Your task to perform on an android device: check google app version Image 0: 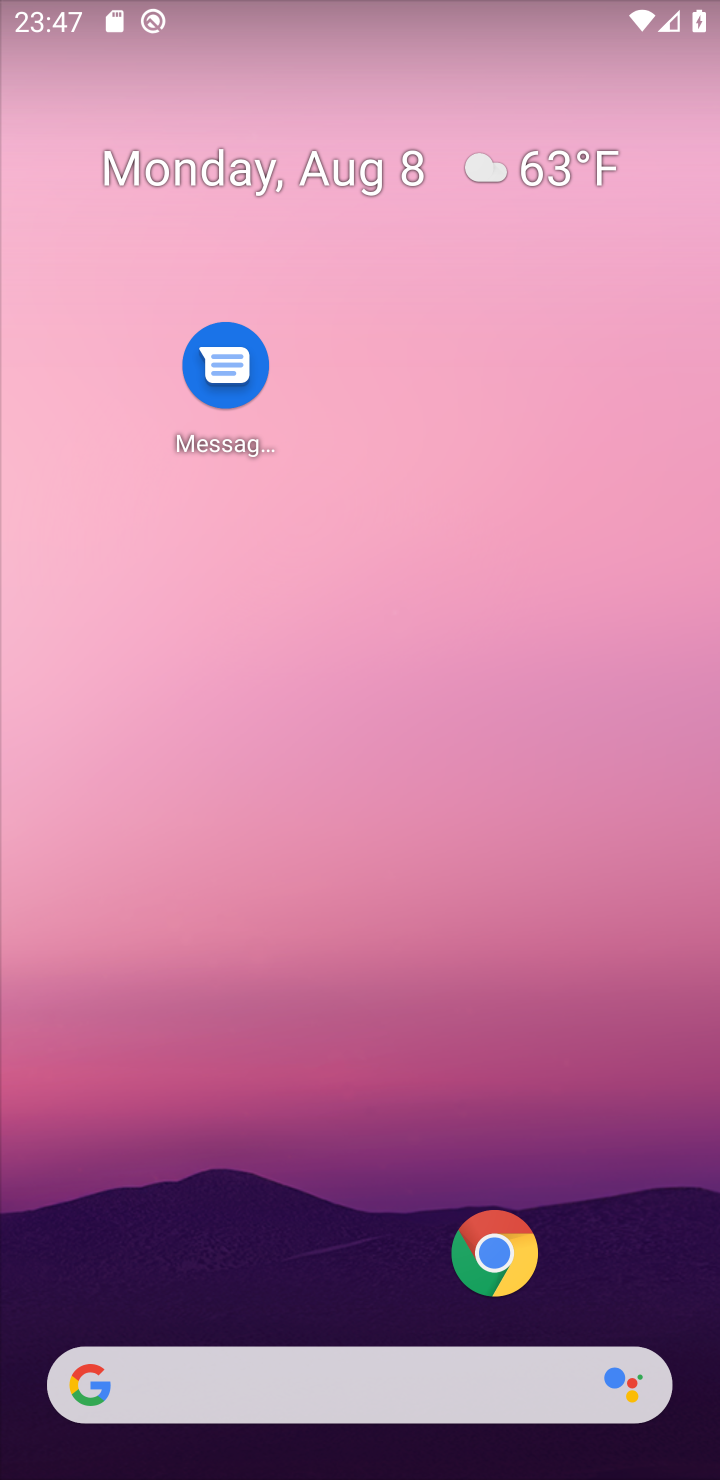
Step 0: drag from (246, 1303) to (396, 524)
Your task to perform on an android device: check google app version Image 1: 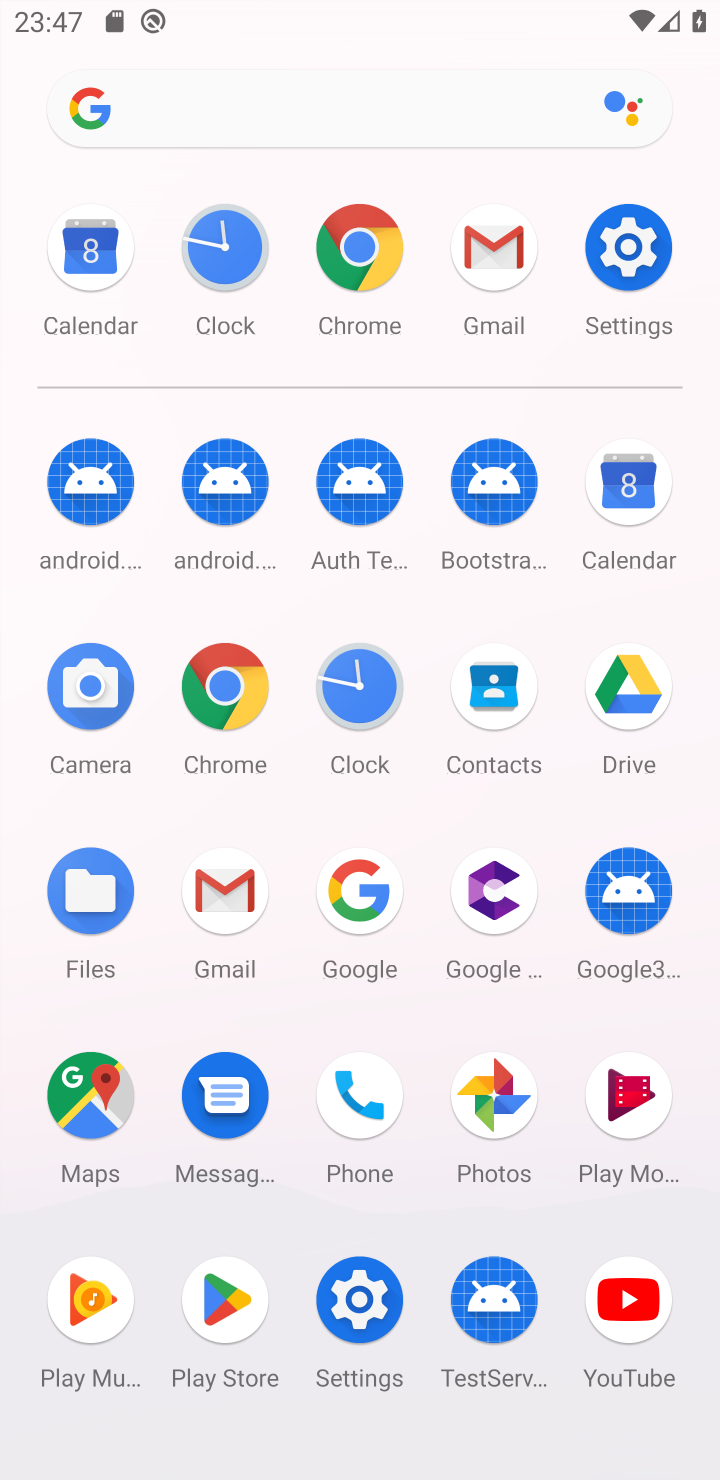
Step 1: click (347, 898)
Your task to perform on an android device: check google app version Image 2: 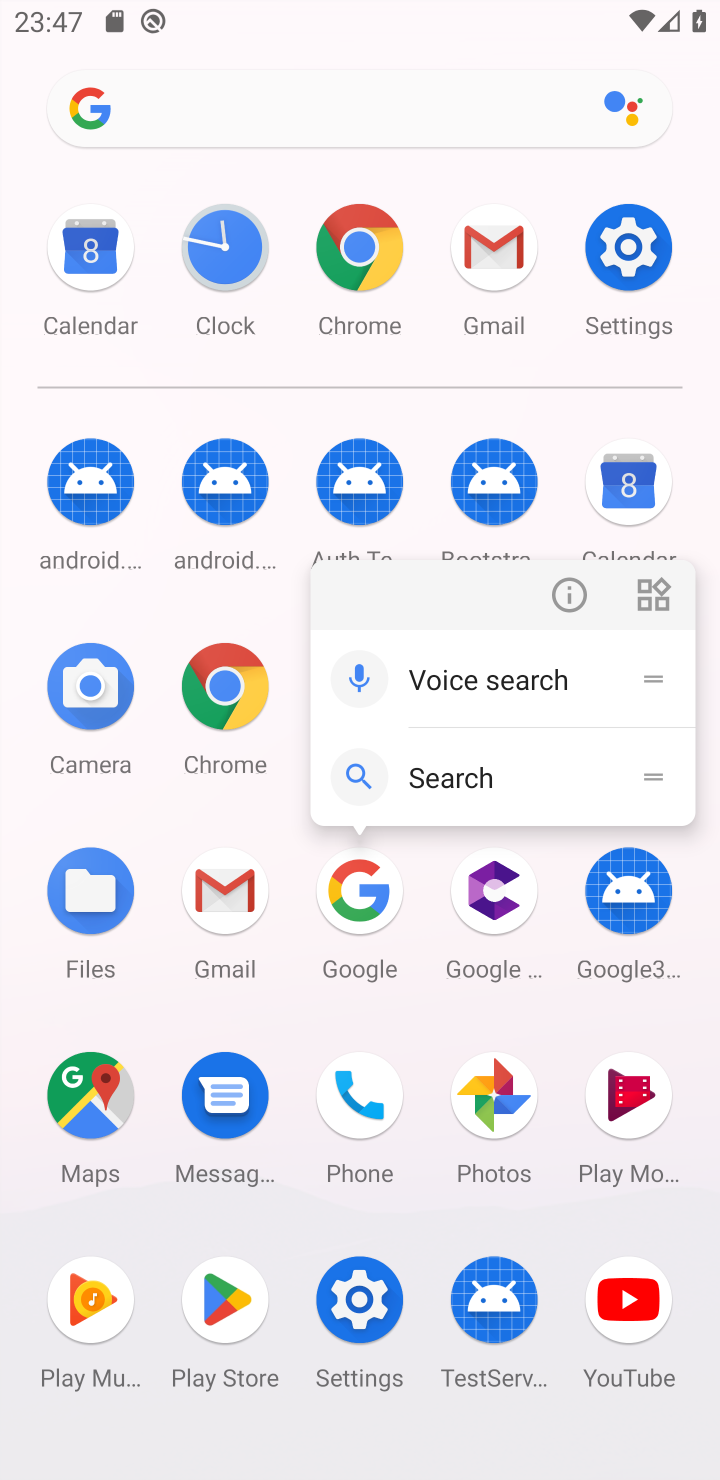
Step 2: click (347, 898)
Your task to perform on an android device: check google app version Image 3: 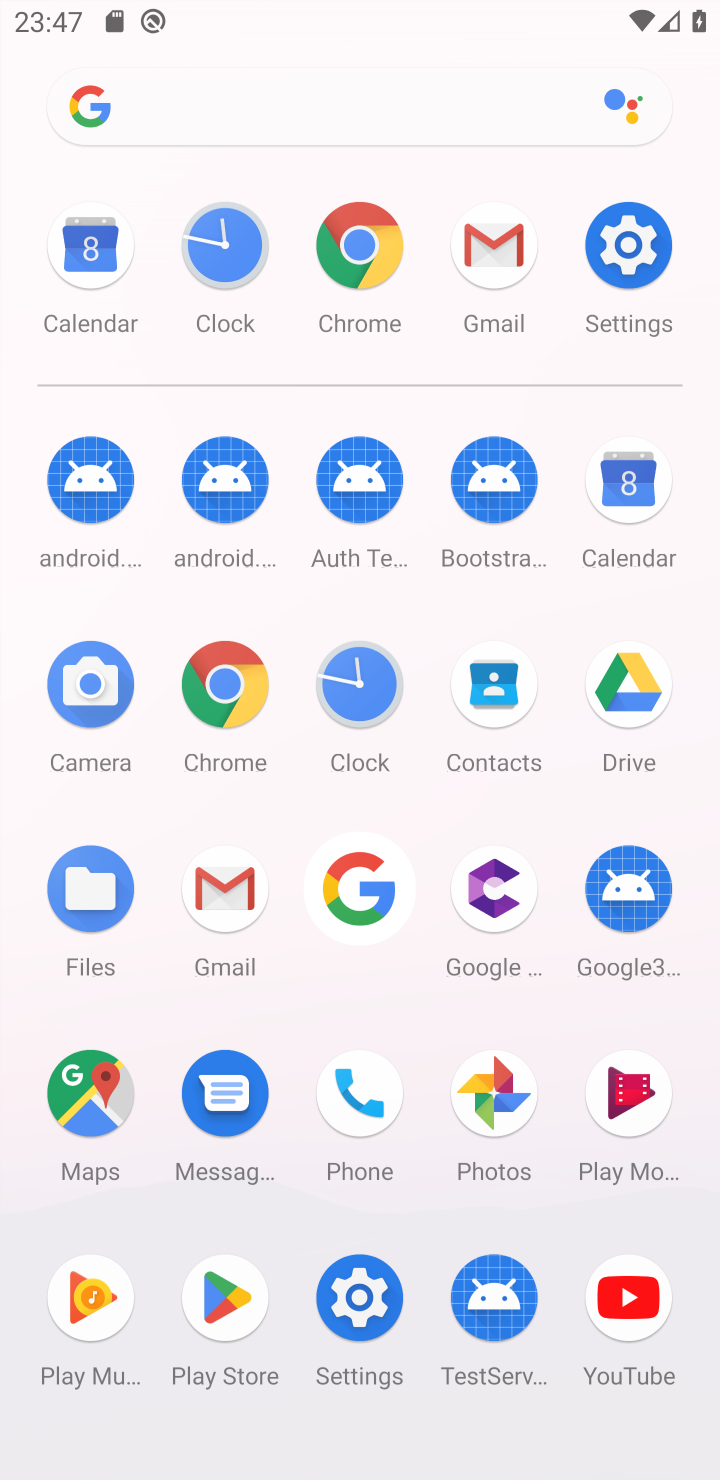
Step 3: click (347, 898)
Your task to perform on an android device: check google app version Image 4: 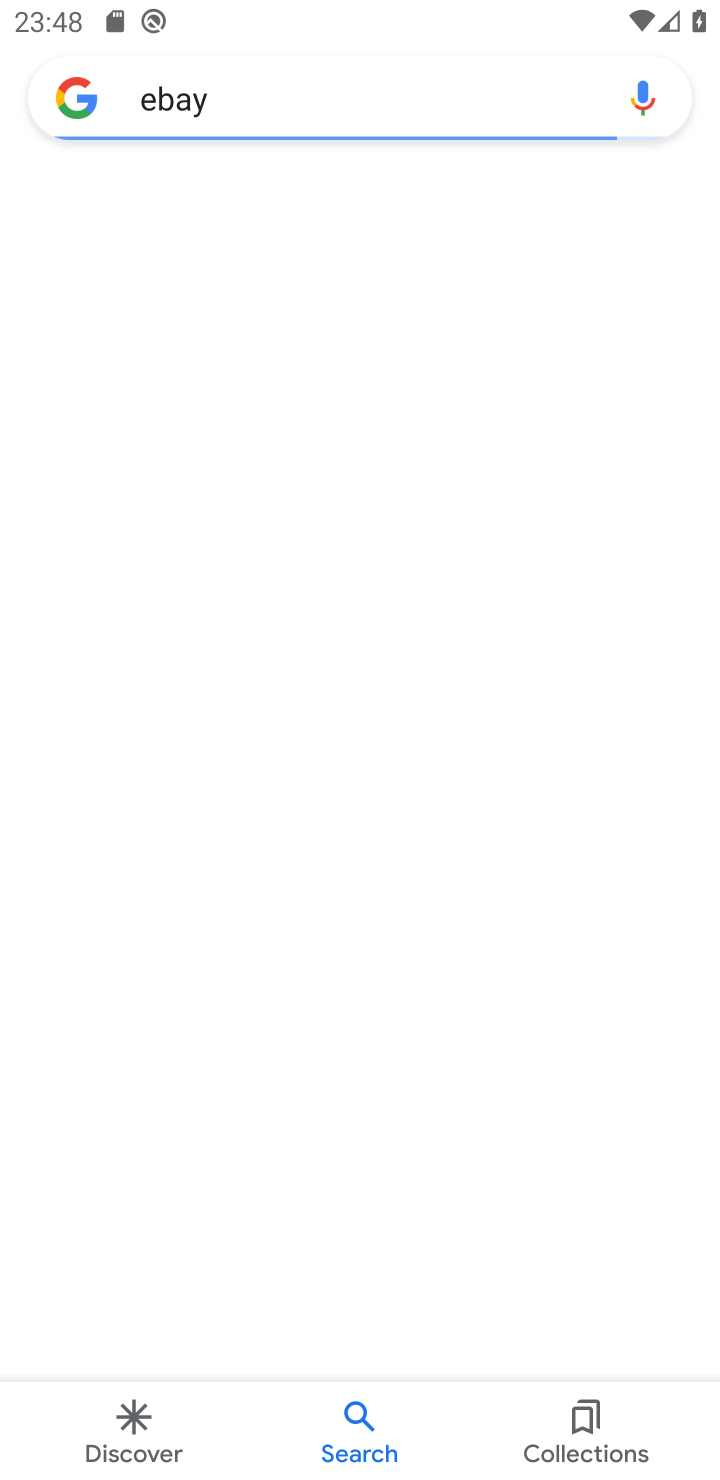
Step 4: click (73, 86)
Your task to perform on an android device: check google app version Image 5: 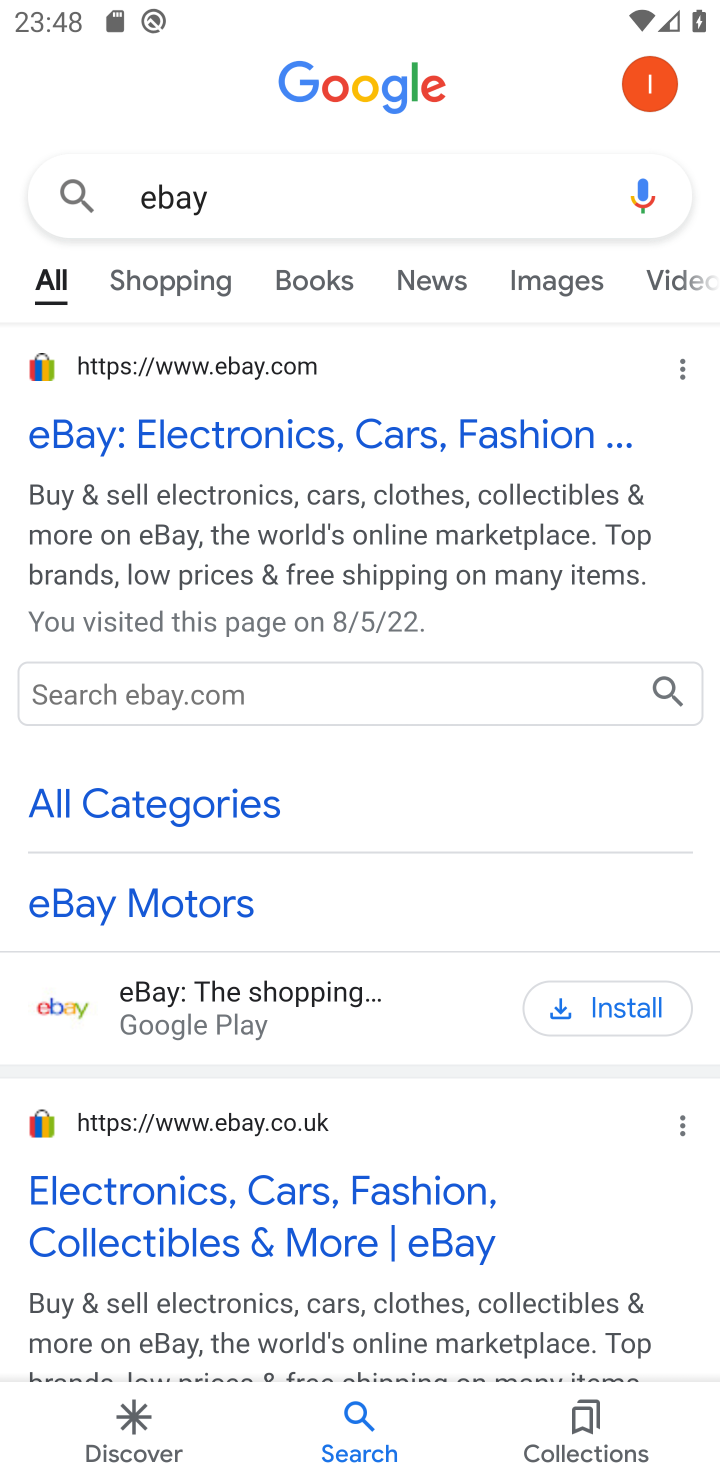
Step 5: click (641, 93)
Your task to perform on an android device: check google app version Image 6: 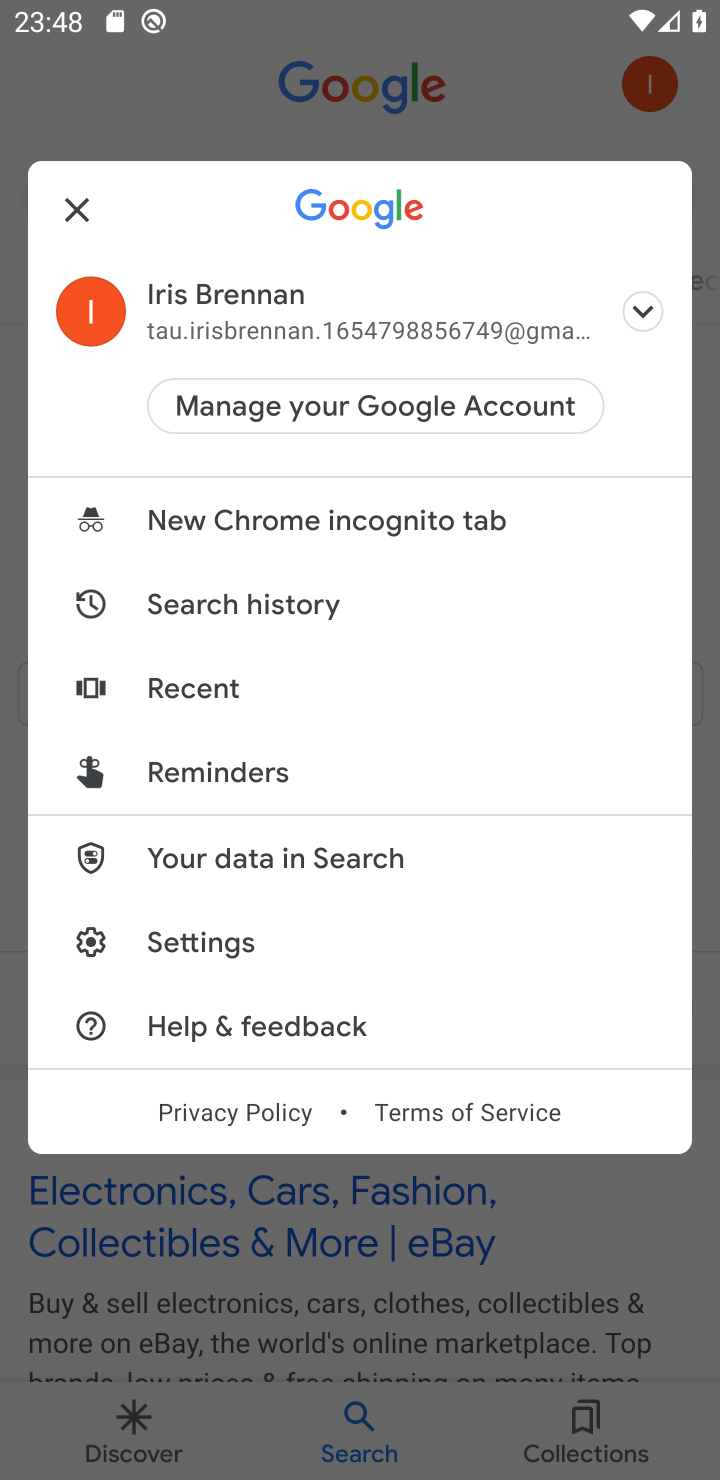
Step 6: click (219, 965)
Your task to perform on an android device: check google app version Image 7: 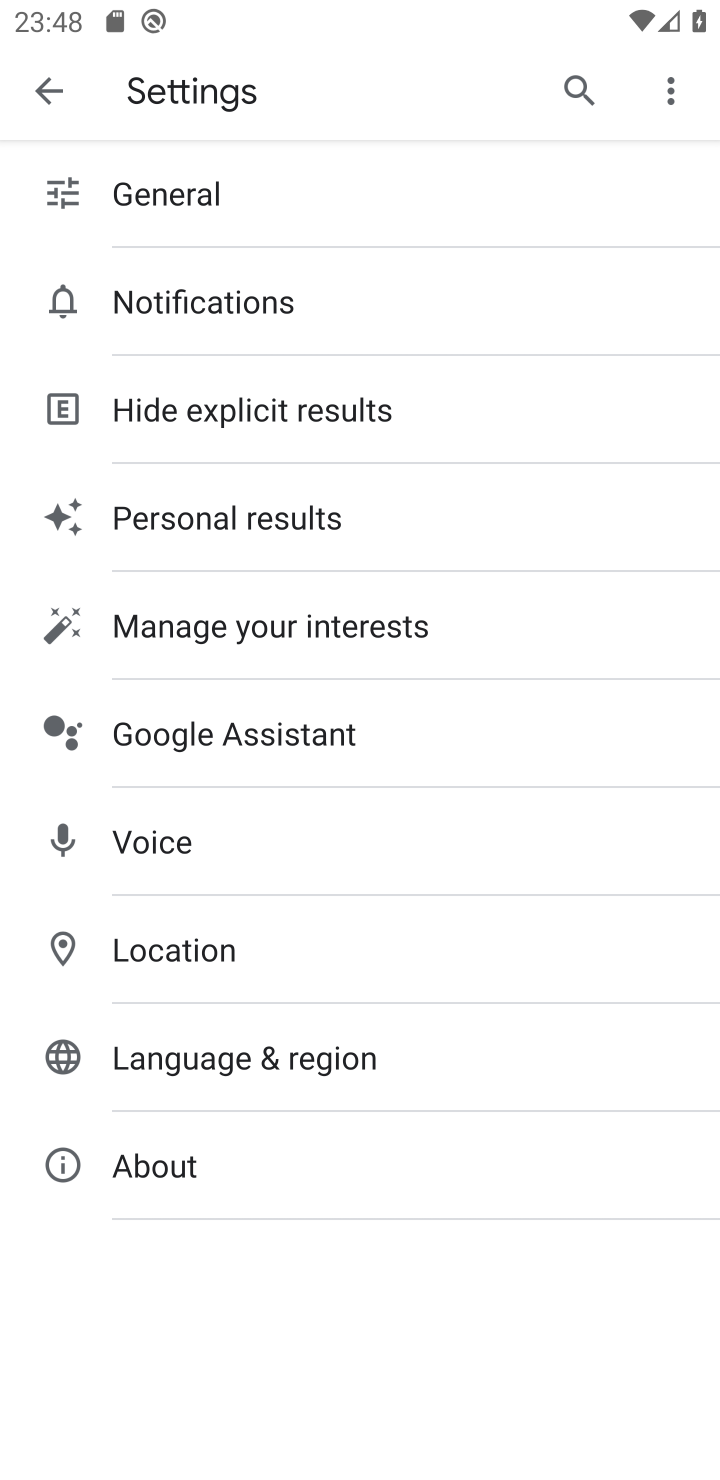
Step 7: click (188, 1159)
Your task to perform on an android device: check google app version Image 8: 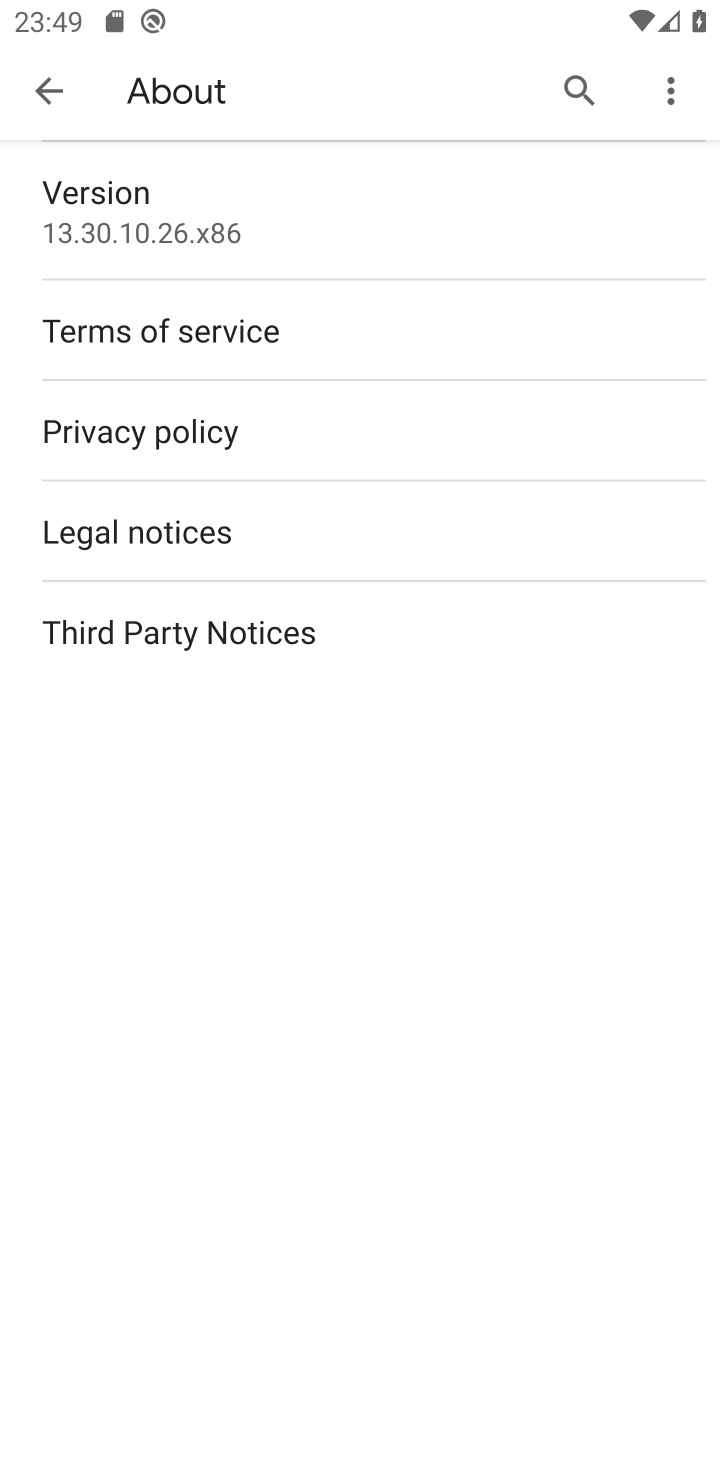
Step 8: task complete